Your task to perform on an android device: turn off notifications in google photos Image 0: 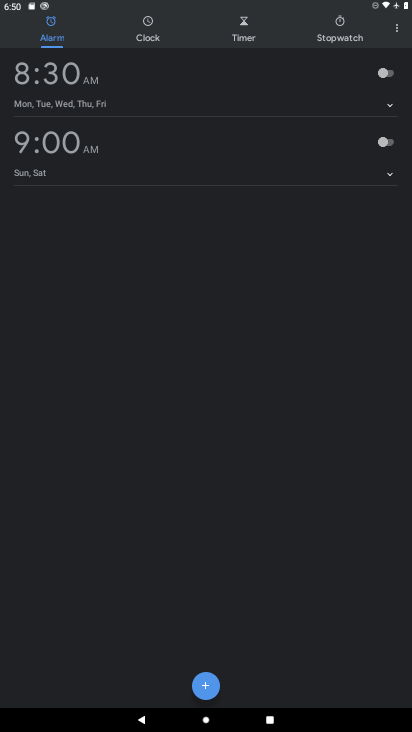
Step 0: press home button
Your task to perform on an android device: turn off notifications in google photos Image 1: 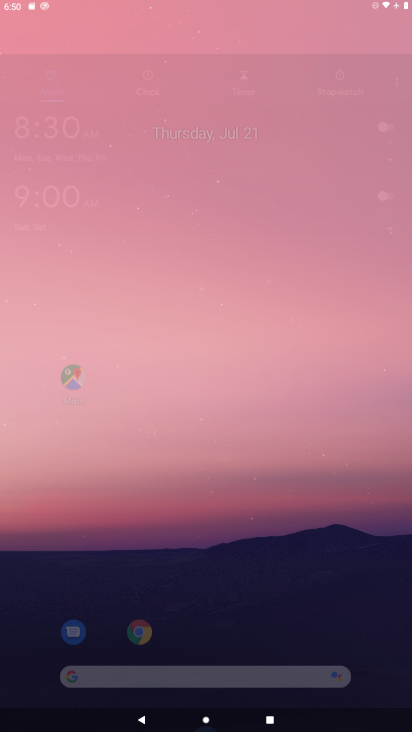
Step 1: drag from (379, 688) to (348, 387)
Your task to perform on an android device: turn off notifications in google photos Image 2: 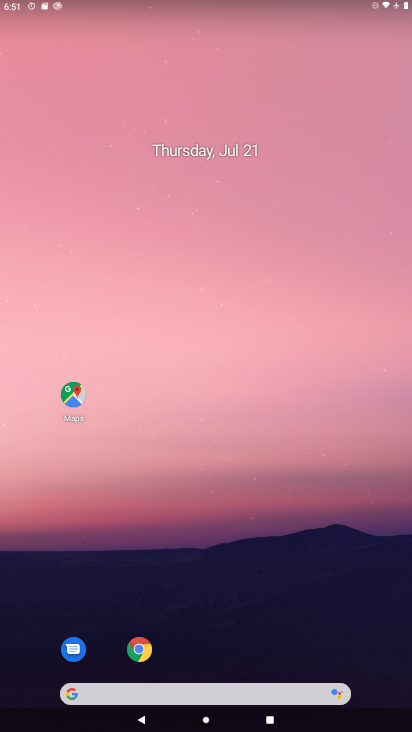
Step 2: drag from (293, 458) to (214, 48)
Your task to perform on an android device: turn off notifications in google photos Image 3: 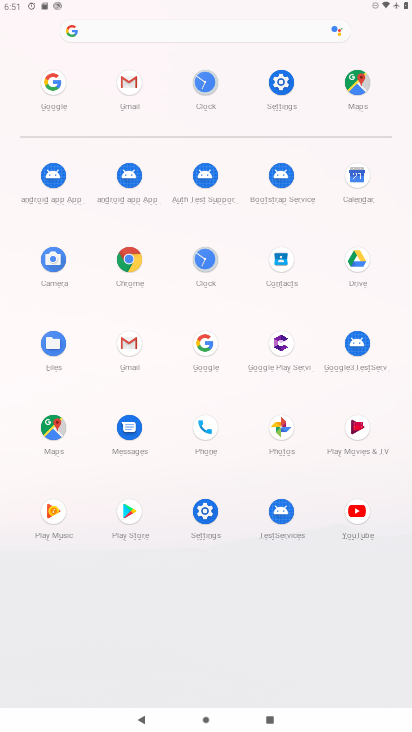
Step 3: click (283, 418)
Your task to perform on an android device: turn off notifications in google photos Image 4: 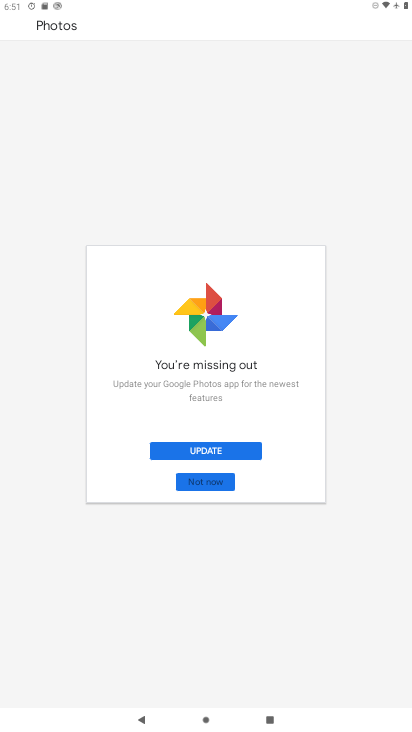
Step 4: click (184, 452)
Your task to perform on an android device: turn off notifications in google photos Image 5: 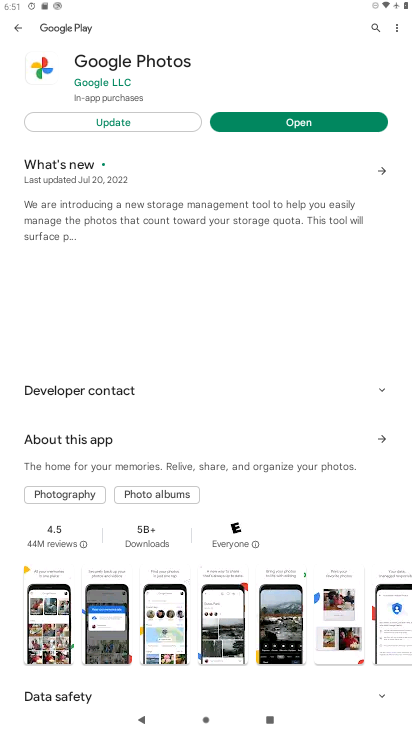
Step 5: click (129, 119)
Your task to perform on an android device: turn off notifications in google photos Image 6: 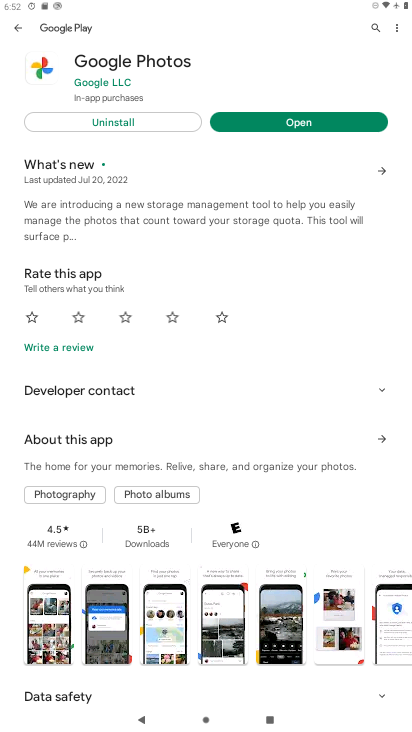
Step 6: click (247, 127)
Your task to perform on an android device: turn off notifications in google photos Image 7: 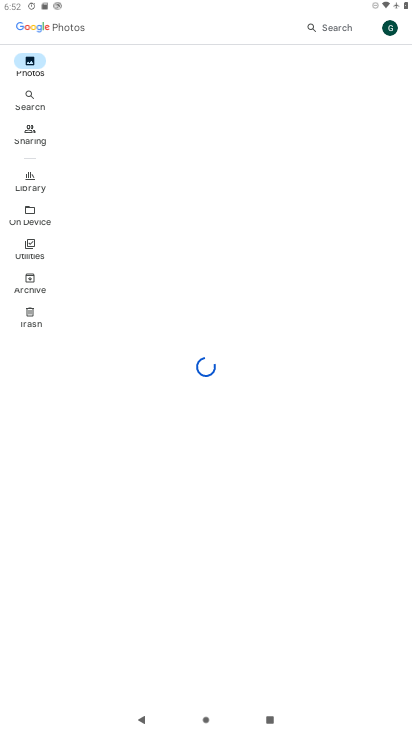
Step 7: click (395, 24)
Your task to perform on an android device: turn off notifications in google photos Image 8: 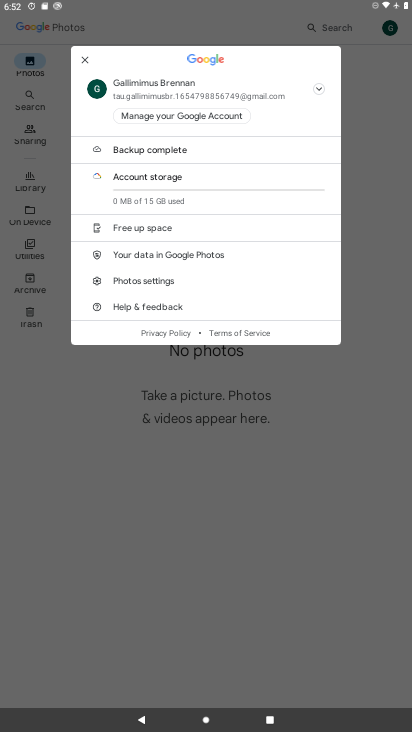
Step 8: click (127, 288)
Your task to perform on an android device: turn off notifications in google photos Image 9: 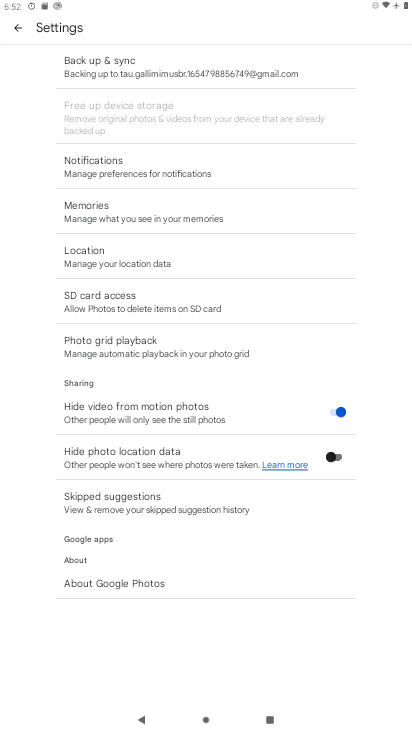
Step 9: click (161, 168)
Your task to perform on an android device: turn off notifications in google photos Image 10: 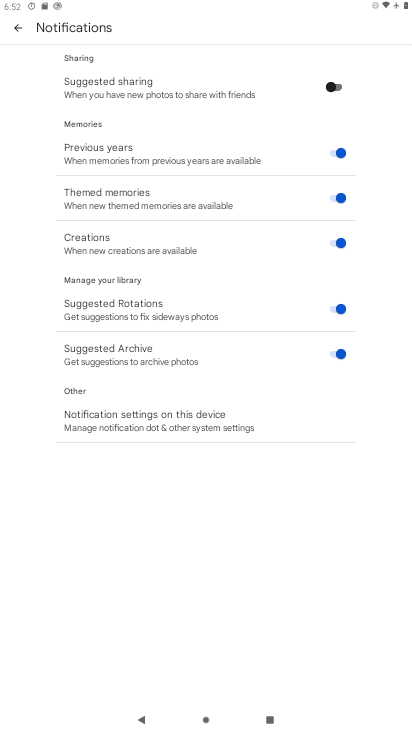
Step 10: task complete